Your task to perform on an android device: search for starred emails in the gmail app Image 0: 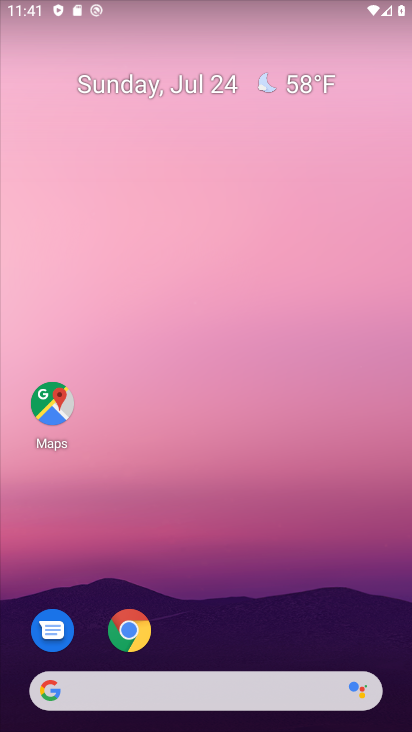
Step 0: drag from (222, 627) to (177, 245)
Your task to perform on an android device: search for starred emails in the gmail app Image 1: 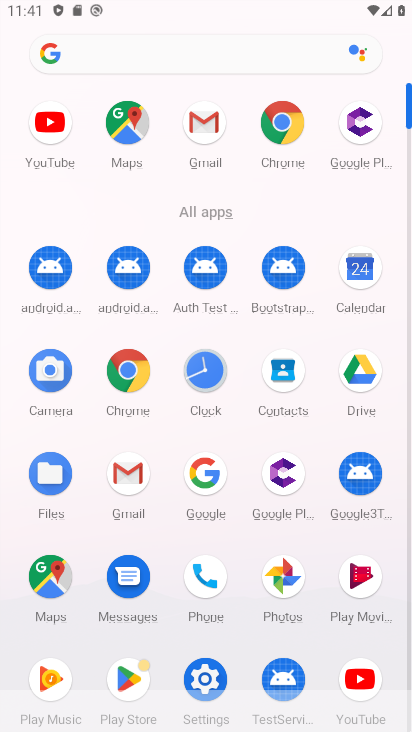
Step 1: click (196, 126)
Your task to perform on an android device: search for starred emails in the gmail app Image 2: 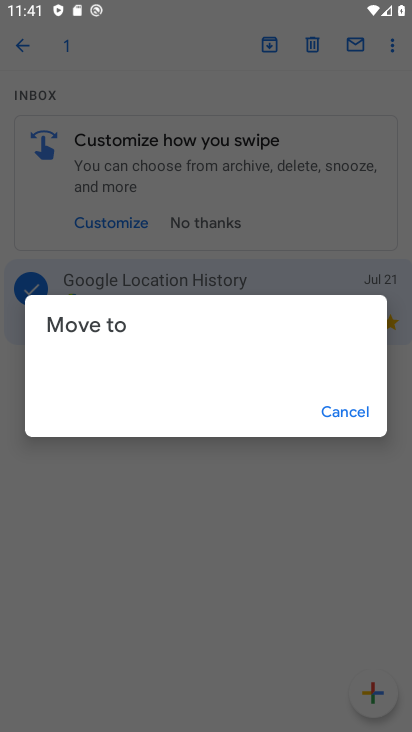
Step 2: click (339, 423)
Your task to perform on an android device: search for starred emails in the gmail app Image 3: 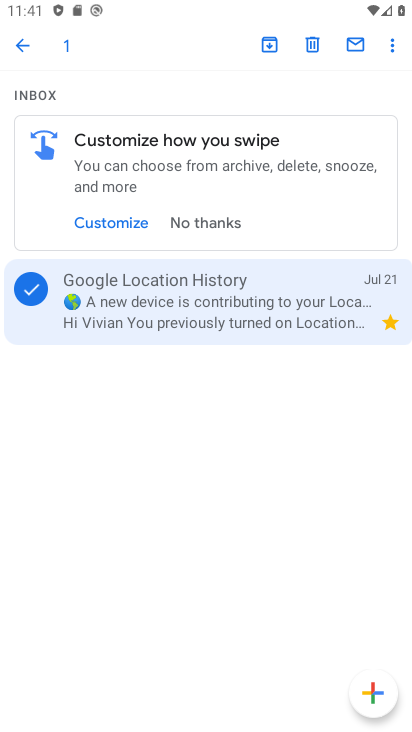
Step 3: click (32, 36)
Your task to perform on an android device: search for starred emails in the gmail app Image 4: 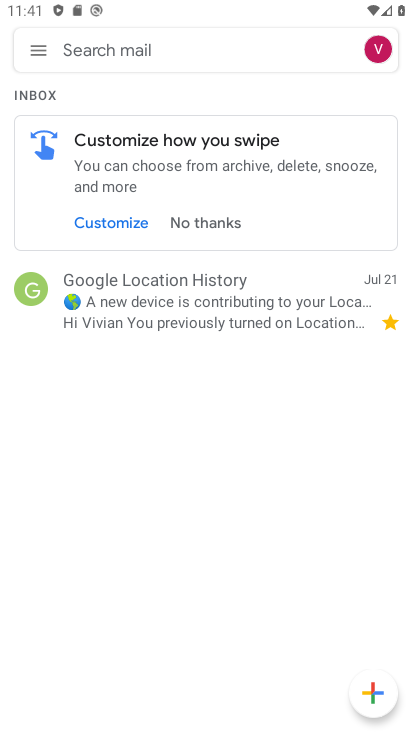
Step 4: click (32, 41)
Your task to perform on an android device: search for starred emails in the gmail app Image 5: 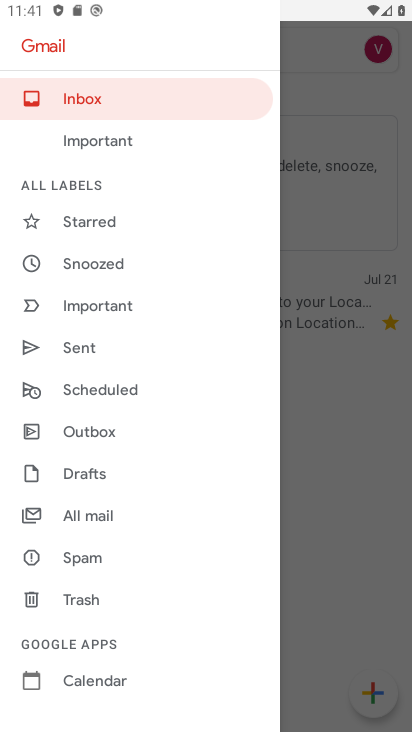
Step 5: click (95, 233)
Your task to perform on an android device: search for starred emails in the gmail app Image 6: 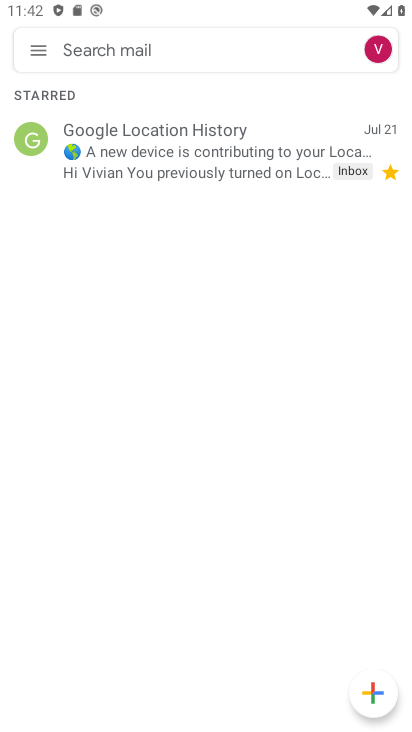
Step 6: task complete